Your task to perform on an android device: find snoozed emails in the gmail app Image 0: 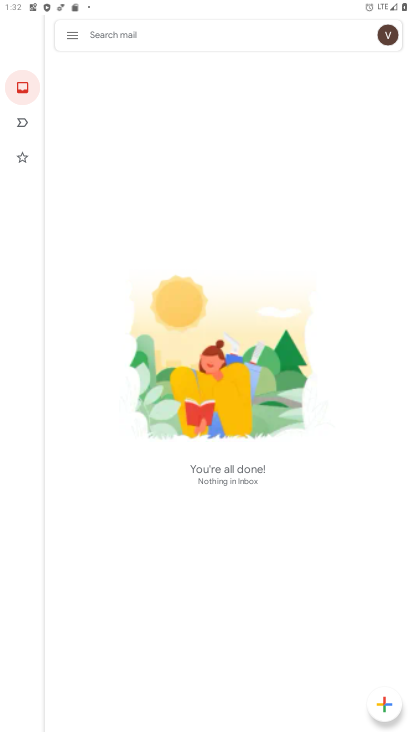
Step 0: press home button
Your task to perform on an android device: find snoozed emails in the gmail app Image 1: 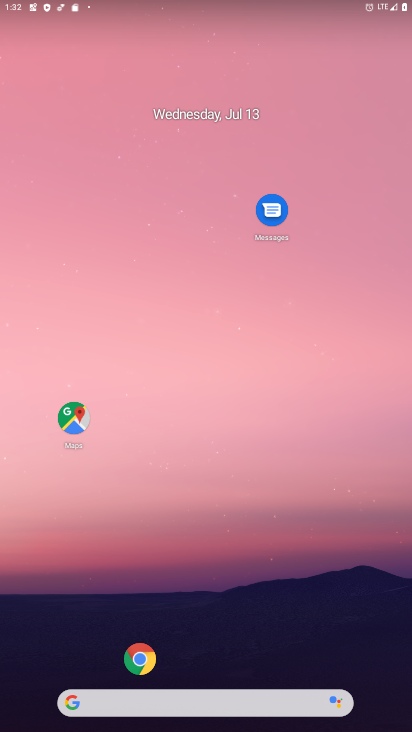
Step 1: drag from (52, 644) to (362, 0)
Your task to perform on an android device: find snoozed emails in the gmail app Image 2: 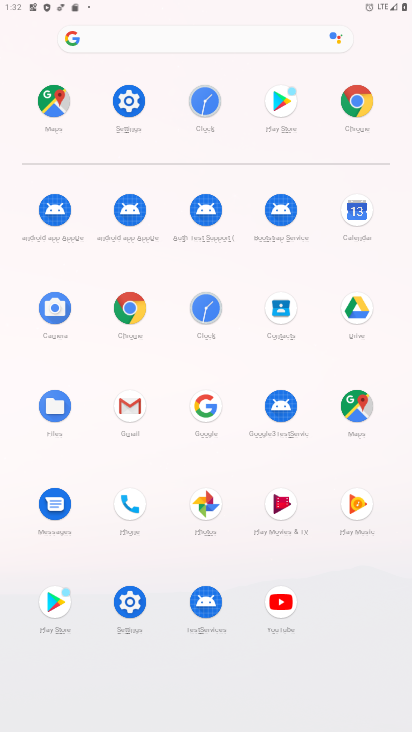
Step 2: drag from (38, 688) to (375, 0)
Your task to perform on an android device: find snoozed emails in the gmail app Image 3: 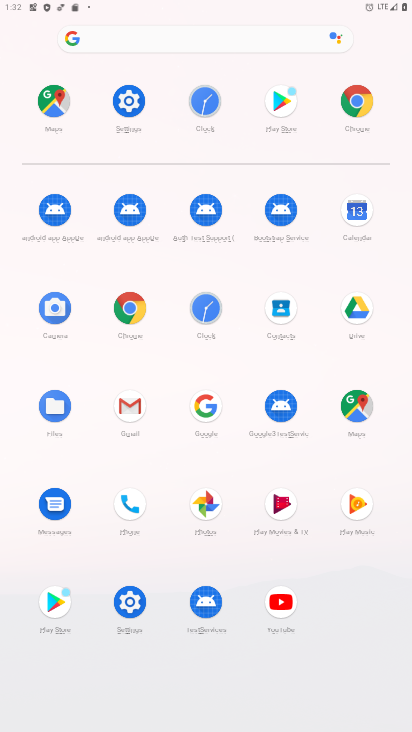
Step 3: click (108, 495)
Your task to perform on an android device: find snoozed emails in the gmail app Image 4: 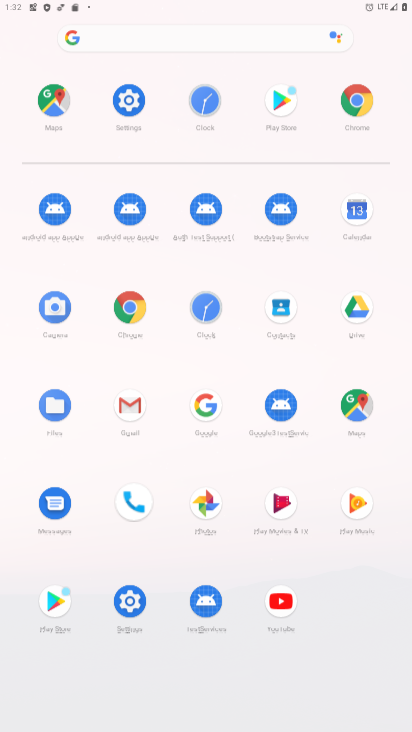
Step 4: click (127, 393)
Your task to perform on an android device: find snoozed emails in the gmail app Image 5: 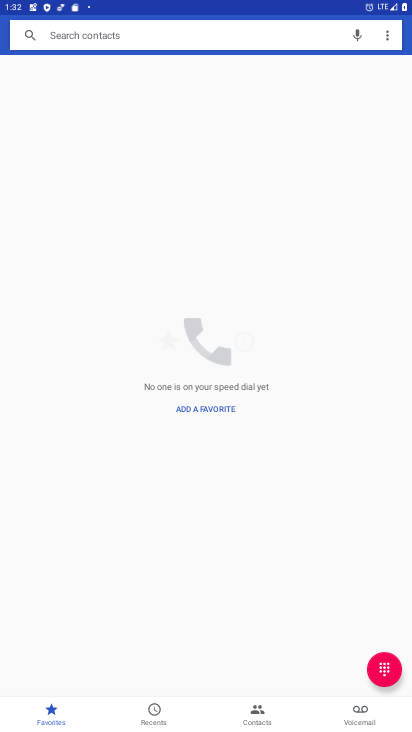
Step 5: press home button
Your task to perform on an android device: find snoozed emails in the gmail app Image 6: 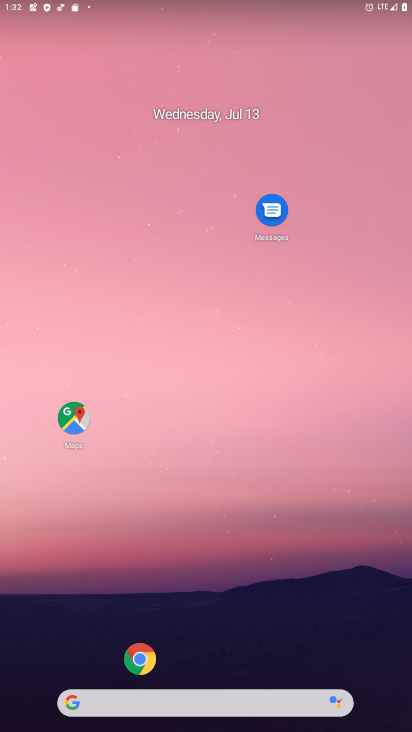
Step 6: drag from (179, 431) to (386, 267)
Your task to perform on an android device: find snoozed emails in the gmail app Image 7: 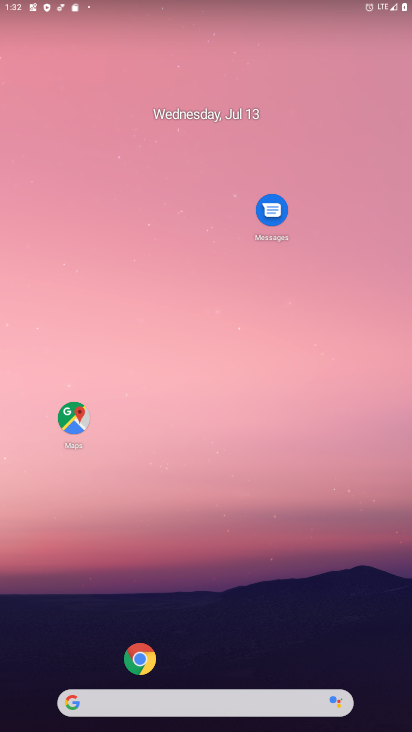
Step 7: drag from (35, 674) to (52, 13)
Your task to perform on an android device: find snoozed emails in the gmail app Image 8: 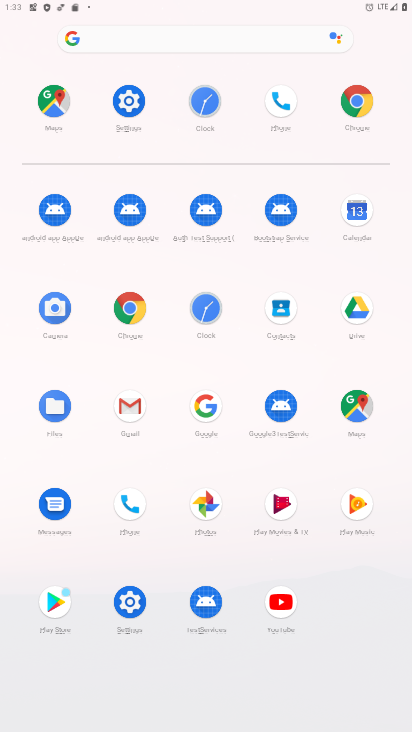
Step 8: click (140, 413)
Your task to perform on an android device: find snoozed emails in the gmail app Image 9: 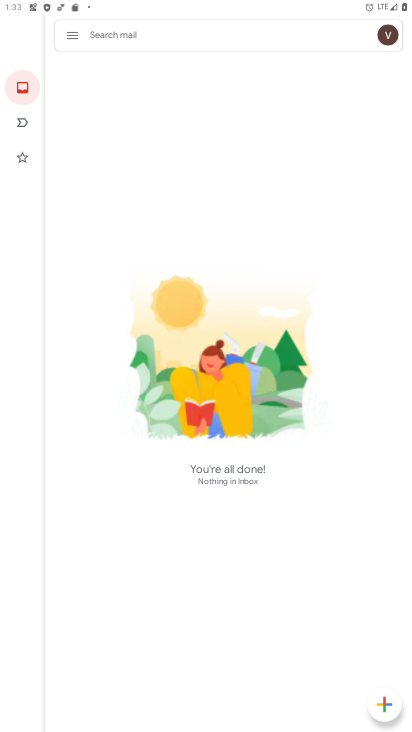
Step 9: click (67, 33)
Your task to perform on an android device: find snoozed emails in the gmail app Image 10: 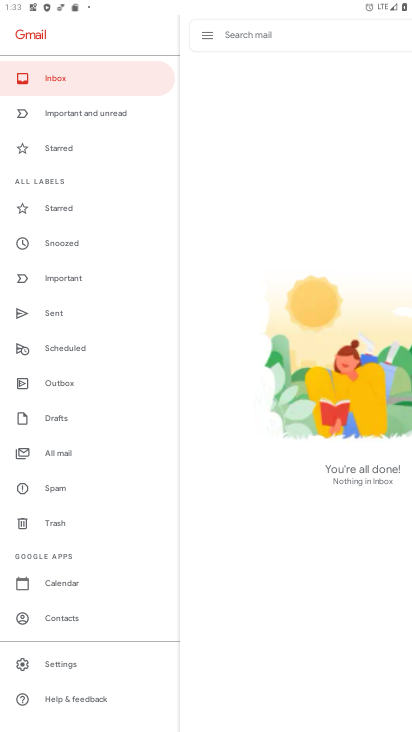
Step 10: click (89, 240)
Your task to perform on an android device: find snoozed emails in the gmail app Image 11: 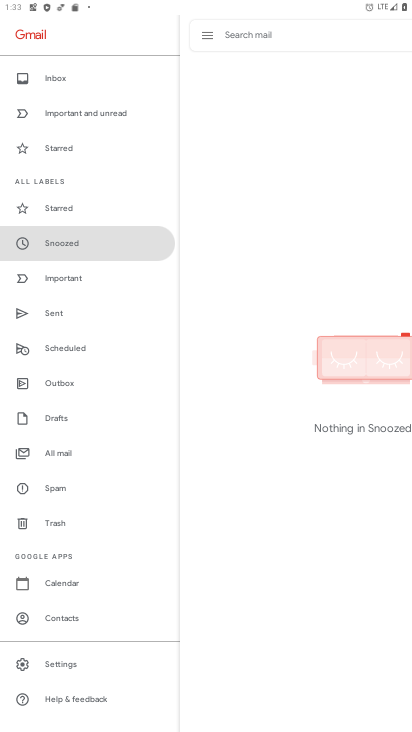
Step 11: task complete